Your task to perform on an android device: Go to Maps Image 0: 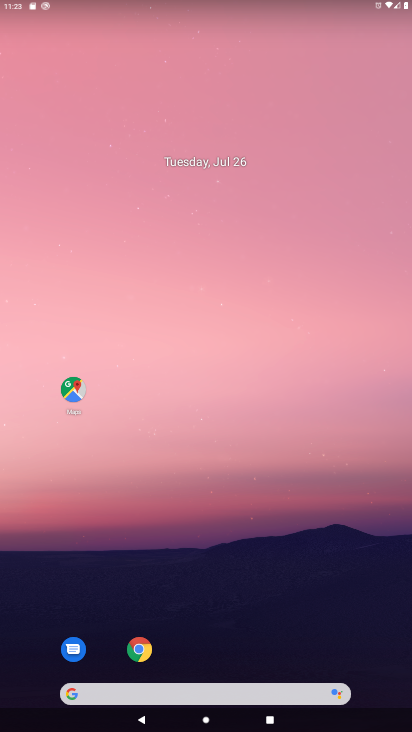
Step 0: click (78, 401)
Your task to perform on an android device: Go to Maps Image 1: 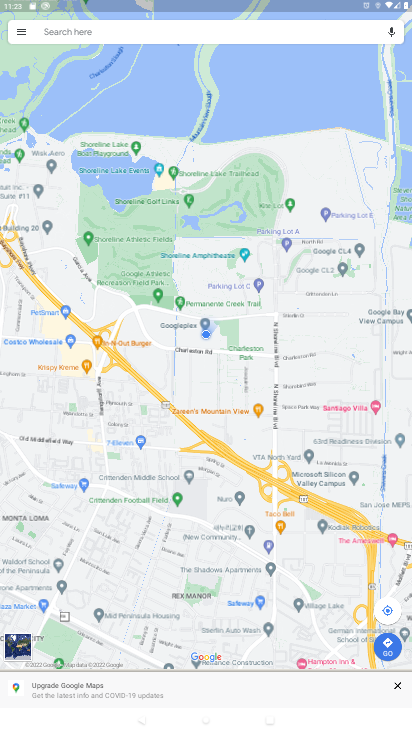
Step 1: task complete